Your task to perform on an android device: delete a single message in the gmail app Image 0: 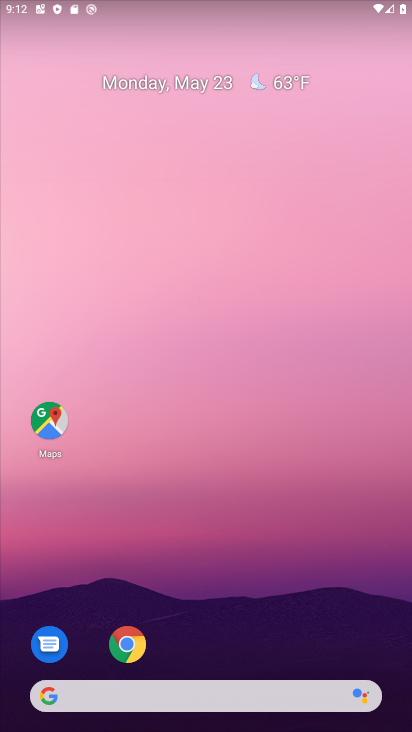
Step 0: drag from (229, 657) to (241, 141)
Your task to perform on an android device: delete a single message in the gmail app Image 1: 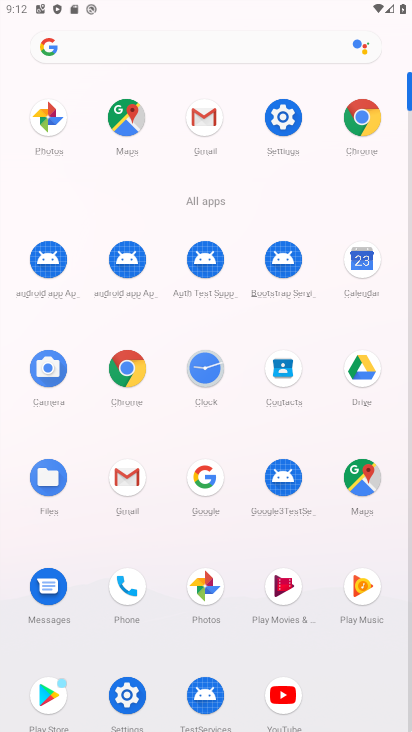
Step 1: click (204, 115)
Your task to perform on an android device: delete a single message in the gmail app Image 2: 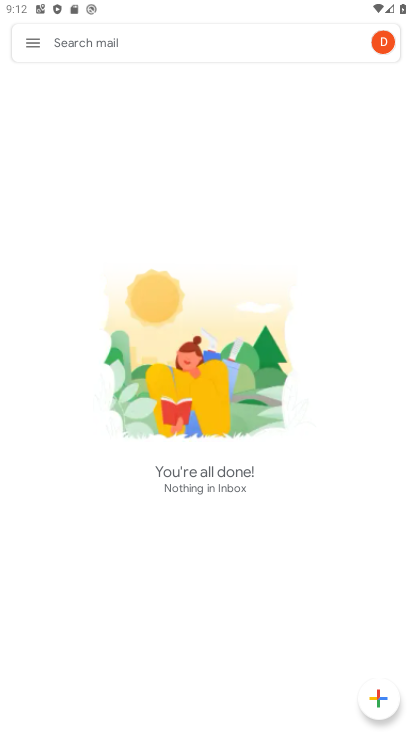
Step 2: task complete